Your task to perform on an android device: turn off wifi Image 0: 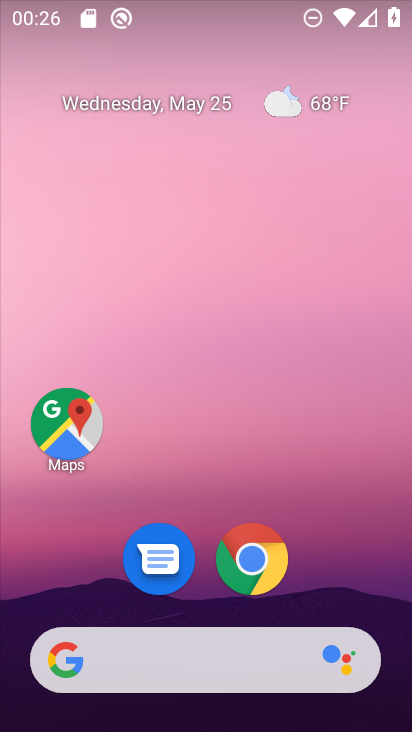
Step 0: drag from (364, 598) to (331, 69)
Your task to perform on an android device: turn off wifi Image 1: 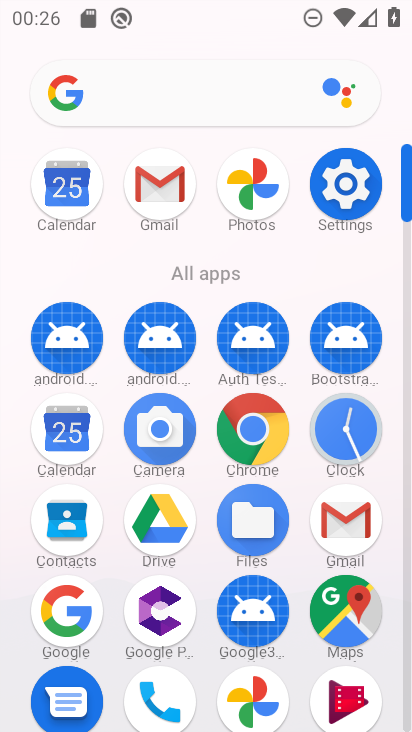
Step 1: click (409, 691)
Your task to perform on an android device: turn off wifi Image 2: 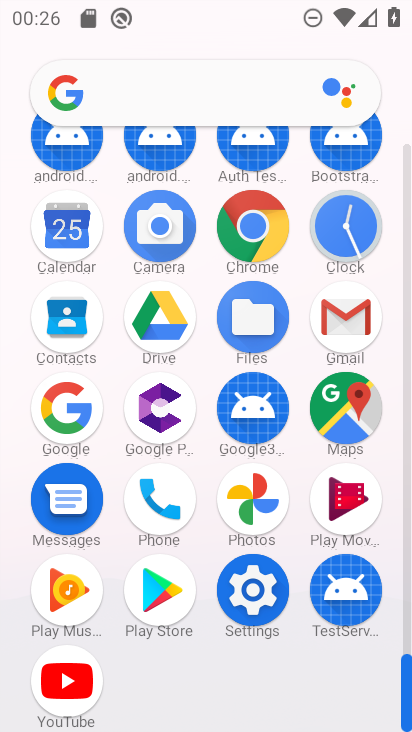
Step 2: click (253, 589)
Your task to perform on an android device: turn off wifi Image 3: 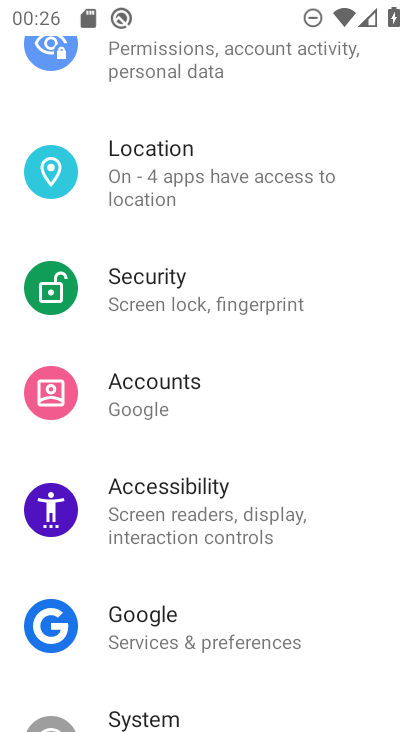
Step 3: drag from (295, 307) to (259, 656)
Your task to perform on an android device: turn off wifi Image 4: 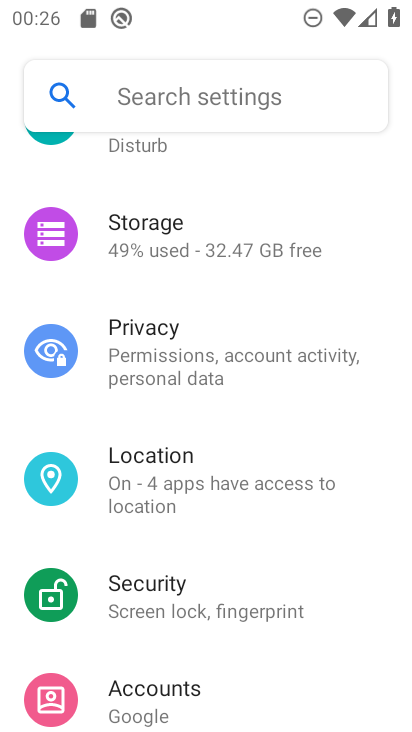
Step 4: drag from (315, 234) to (331, 604)
Your task to perform on an android device: turn off wifi Image 5: 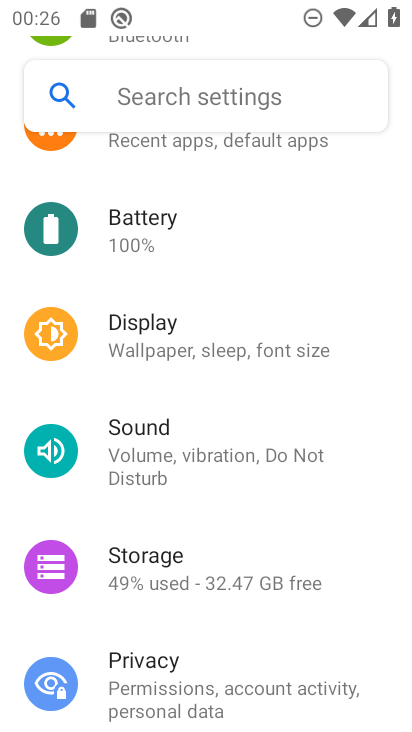
Step 5: drag from (314, 182) to (333, 509)
Your task to perform on an android device: turn off wifi Image 6: 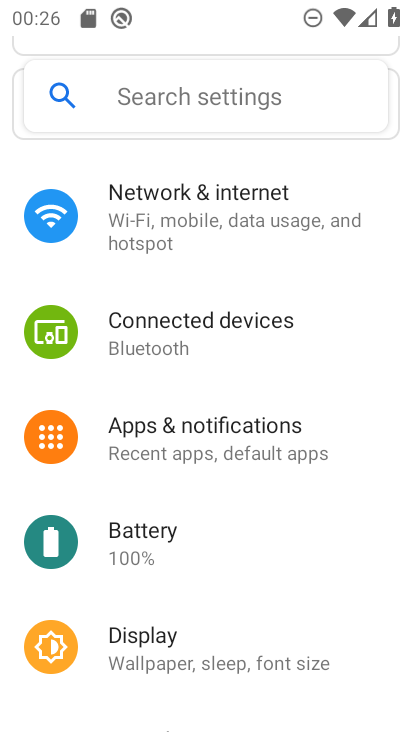
Step 6: click (150, 207)
Your task to perform on an android device: turn off wifi Image 7: 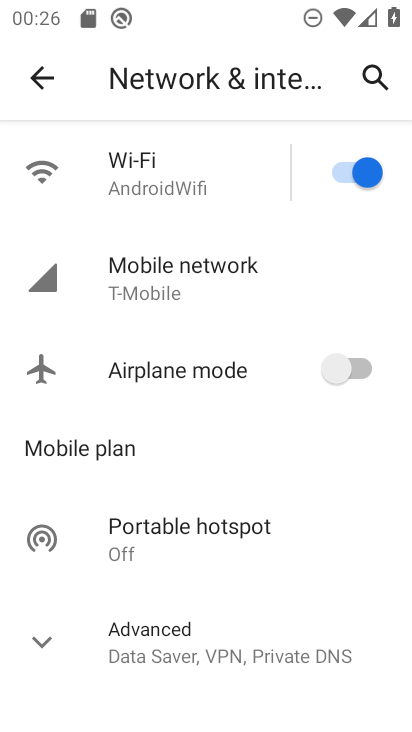
Step 7: click (339, 166)
Your task to perform on an android device: turn off wifi Image 8: 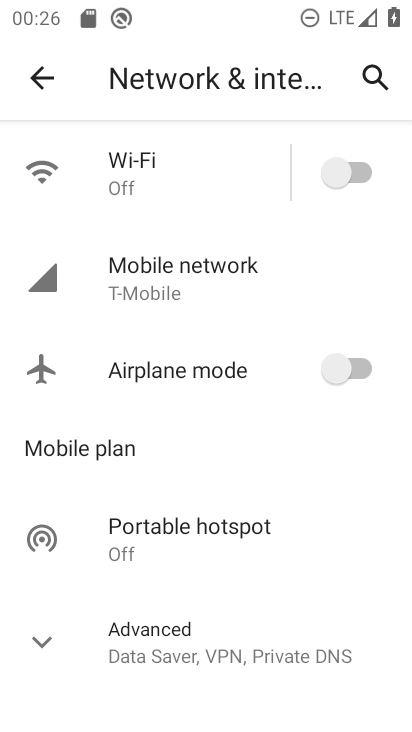
Step 8: task complete